Your task to perform on an android device: open the mobile data screen to see how much data has been used Image 0: 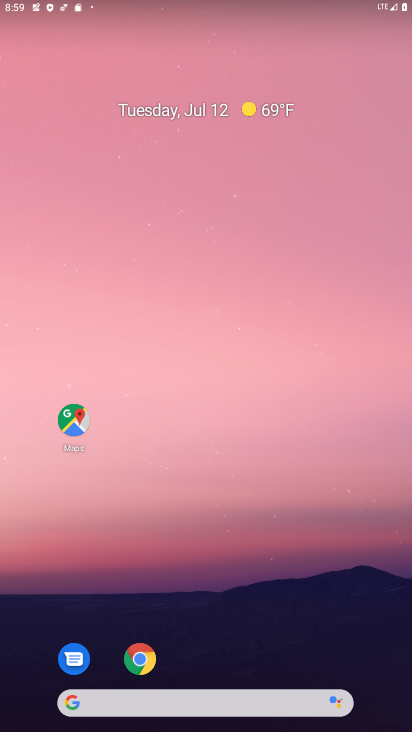
Step 0: drag from (244, 723) to (269, 149)
Your task to perform on an android device: open the mobile data screen to see how much data has been used Image 1: 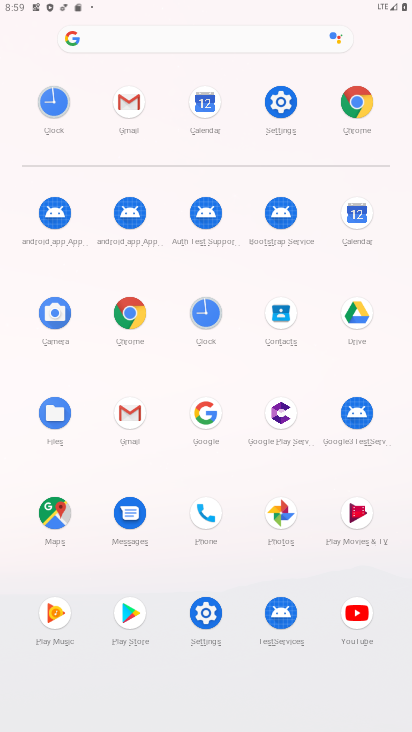
Step 1: click (286, 107)
Your task to perform on an android device: open the mobile data screen to see how much data has been used Image 2: 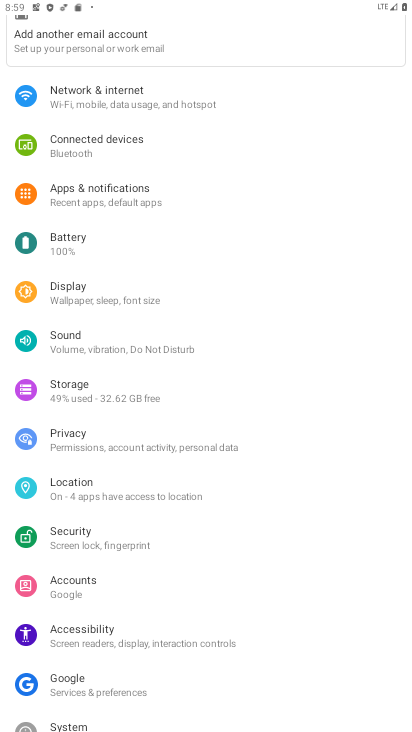
Step 2: click (286, 107)
Your task to perform on an android device: open the mobile data screen to see how much data has been used Image 3: 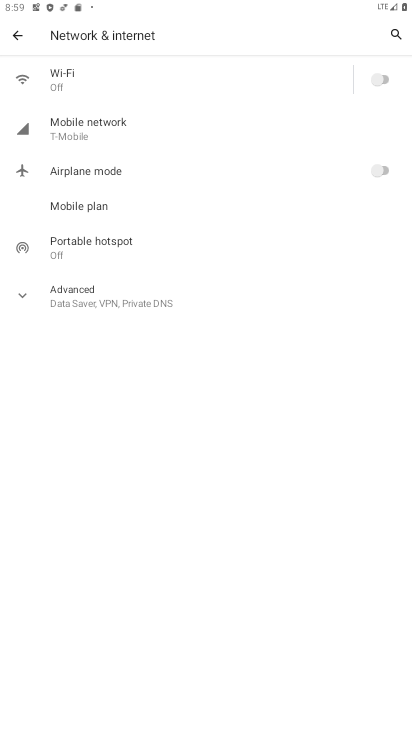
Step 3: click (86, 120)
Your task to perform on an android device: open the mobile data screen to see how much data has been used Image 4: 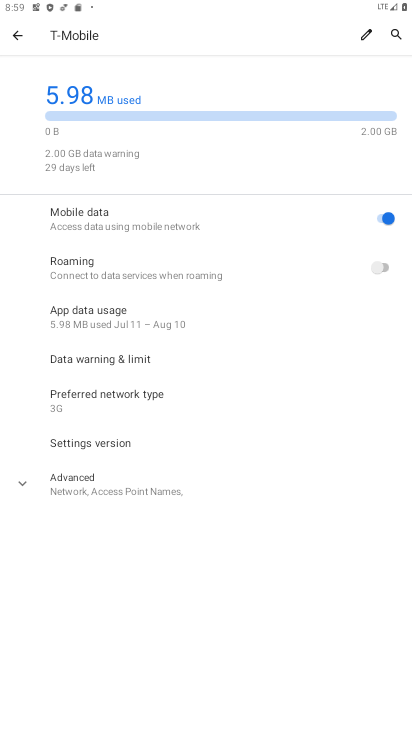
Step 4: click (56, 326)
Your task to perform on an android device: open the mobile data screen to see how much data has been used Image 5: 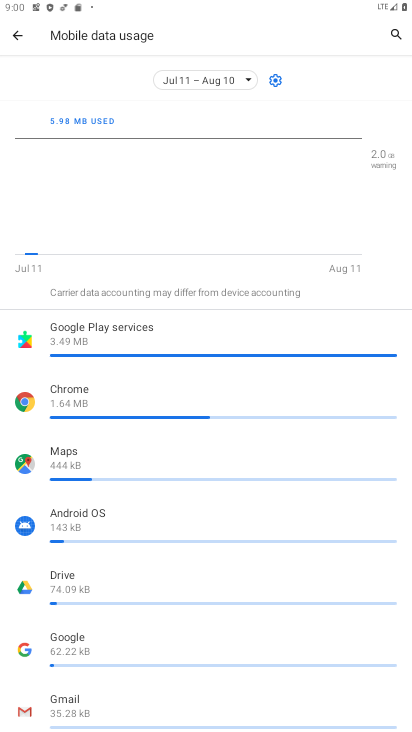
Step 5: task complete